Your task to perform on an android device: Open eBay Image 0: 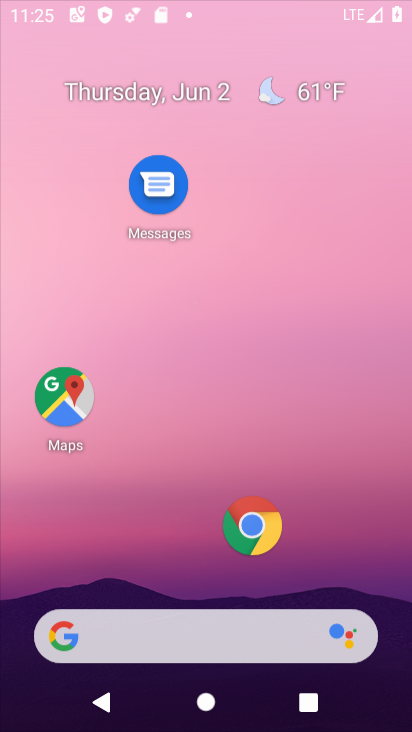
Step 0: press home button
Your task to perform on an android device: Open eBay Image 1: 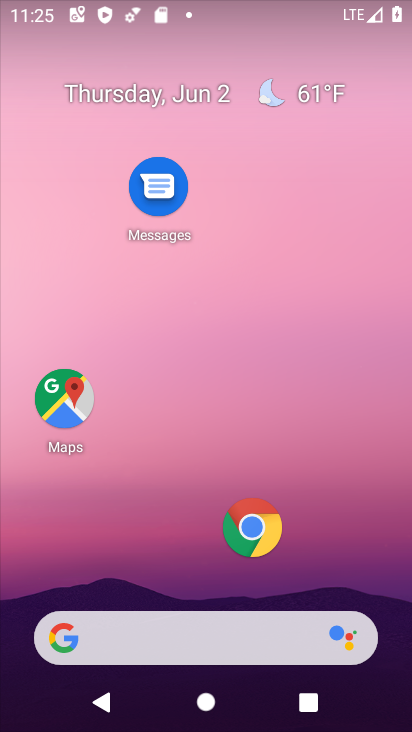
Step 1: click (248, 520)
Your task to perform on an android device: Open eBay Image 2: 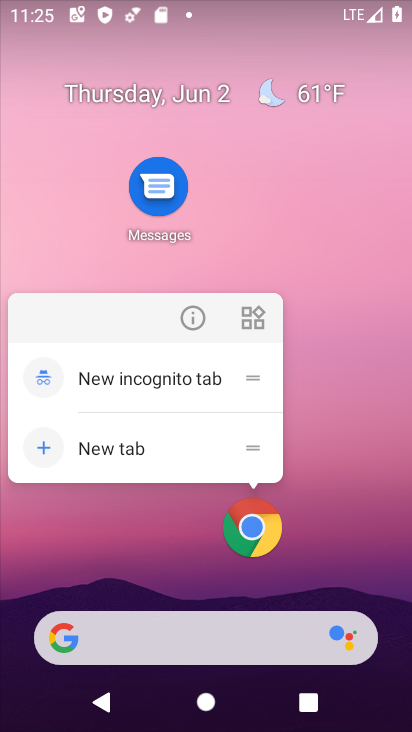
Step 2: click (250, 519)
Your task to perform on an android device: Open eBay Image 3: 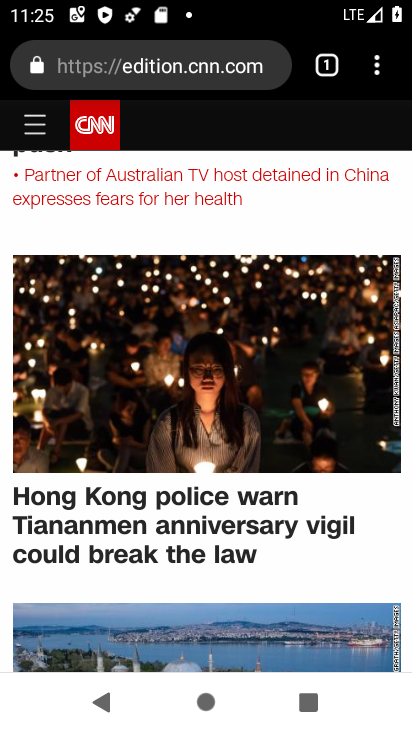
Step 3: click (325, 61)
Your task to perform on an android device: Open eBay Image 4: 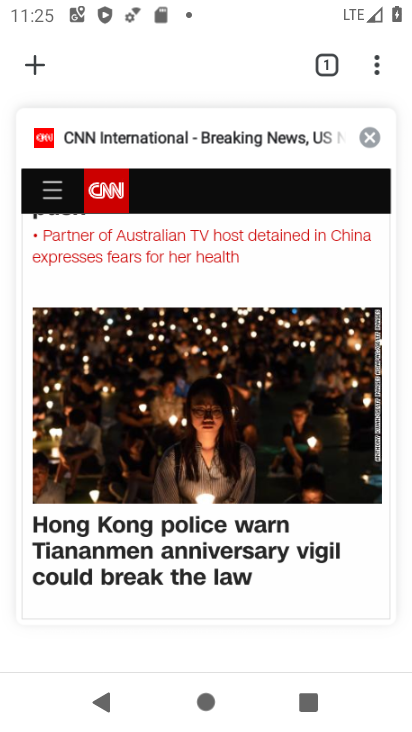
Step 4: click (370, 134)
Your task to perform on an android device: Open eBay Image 5: 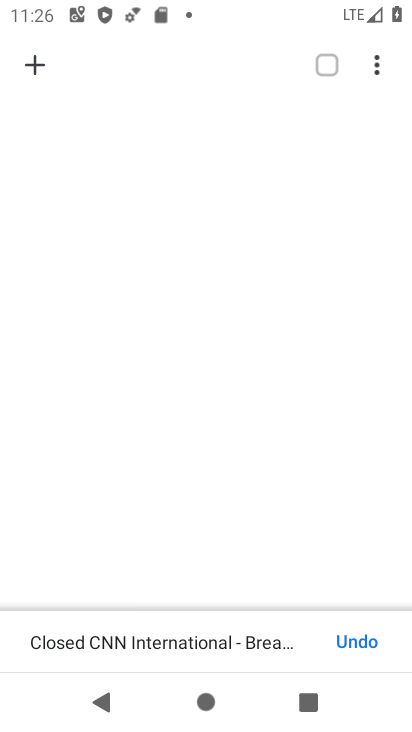
Step 5: click (38, 65)
Your task to perform on an android device: Open eBay Image 6: 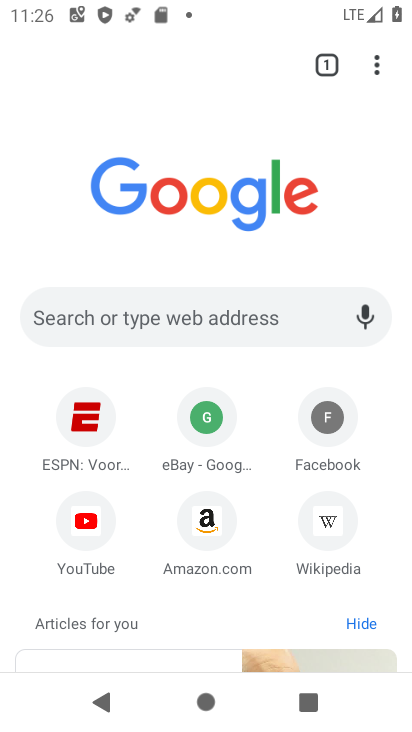
Step 6: click (209, 422)
Your task to perform on an android device: Open eBay Image 7: 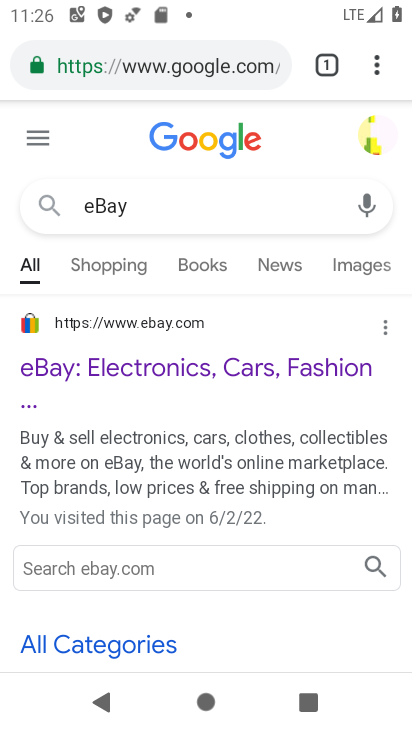
Step 7: click (138, 369)
Your task to perform on an android device: Open eBay Image 8: 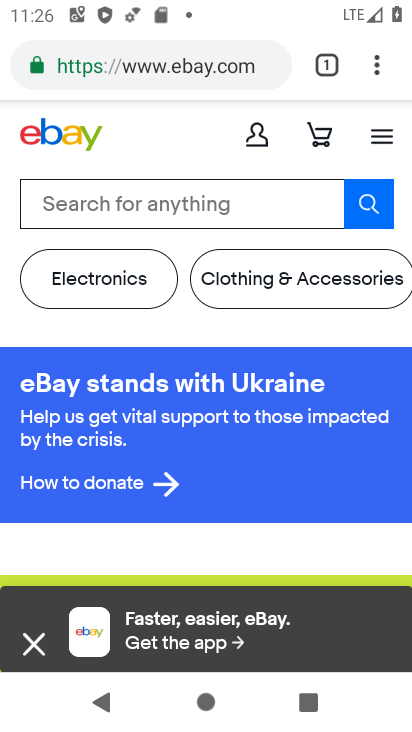
Step 8: click (30, 646)
Your task to perform on an android device: Open eBay Image 9: 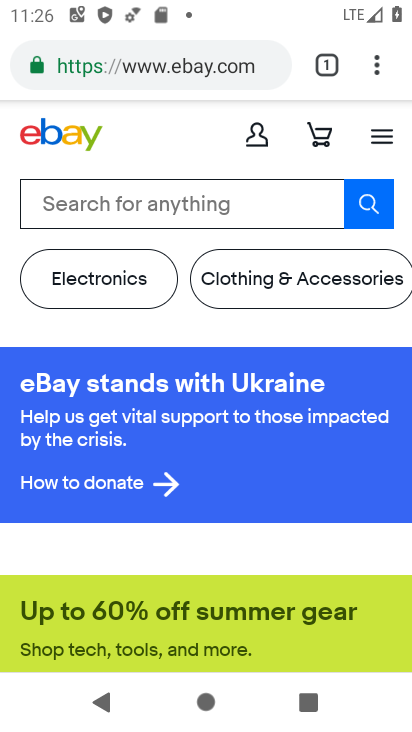
Step 9: task complete